Your task to perform on an android device: Open display settings Image 0: 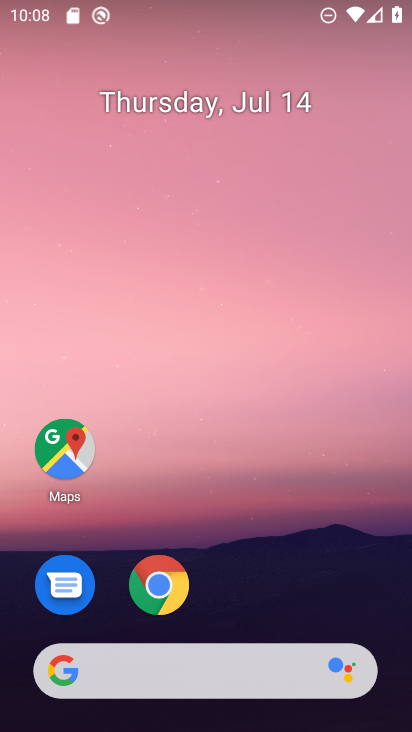
Step 0: drag from (219, 620) to (94, 20)
Your task to perform on an android device: Open display settings Image 1: 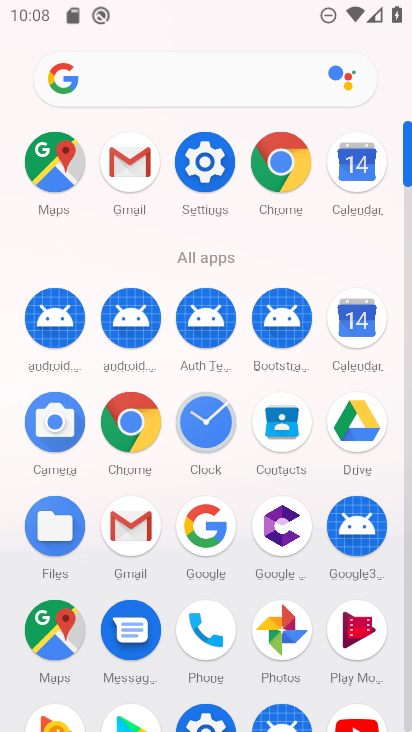
Step 1: click (197, 149)
Your task to perform on an android device: Open display settings Image 2: 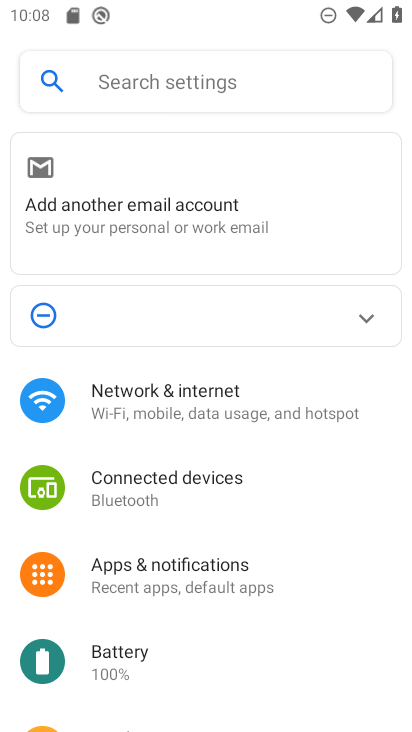
Step 2: drag from (229, 553) to (122, 240)
Your task to perform on an android device: Open display settings Image 3: 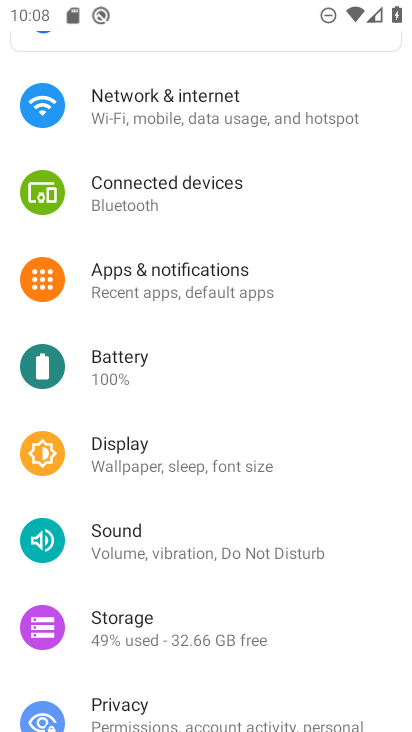
Step 3: click (192, 454)
Your task to perform on an android device: Open display settings Image 4: 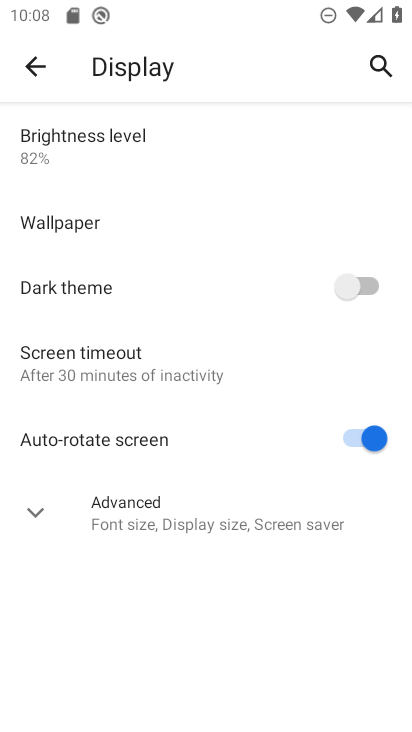
Step 4: task complete